Your task to perform on an android device: open chrome and create a bookmark for the current page Image 0: 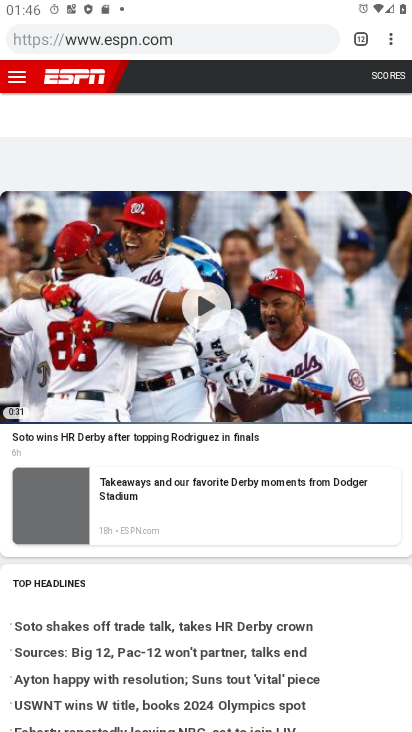
Step 0: click (387, 52)
Your task to perform on an android device: open chrome and create a bookmark for the current page Image 1: 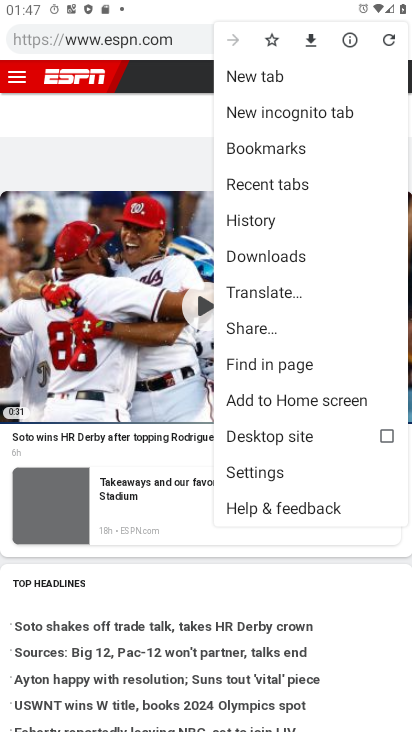
Step 1: click (271, 43)
Your task to perform on an android device: open chrome and create a bookmark for the current page Image 2: 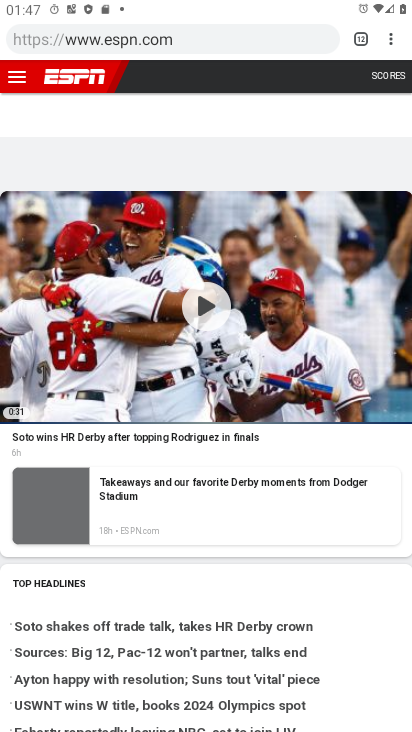
Step 2: task complete